Your task to perform on an android device: Do I have any events this weekend? Image 0: 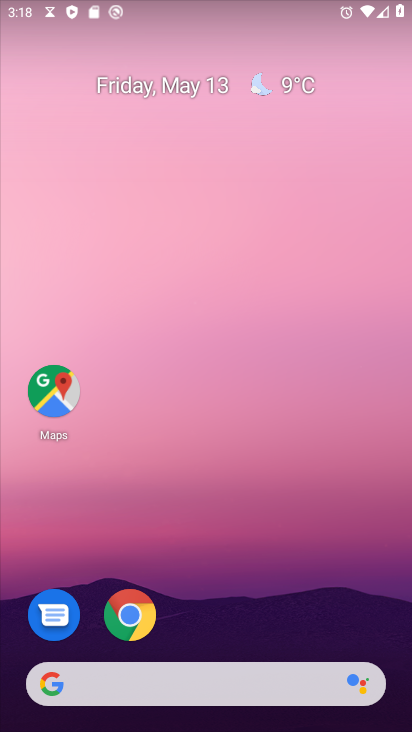
Step 0: drag from (228, 690) to (225, 82)
Your task to perform on an android device: Do I have any events this weekend? Image 1: 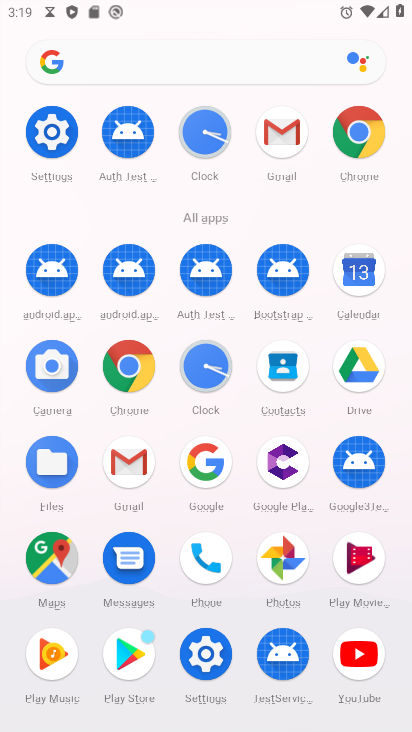
Step 1: click (364, 273)
Your task to perform on an android device: Do I have any events this weekend? Image 2: 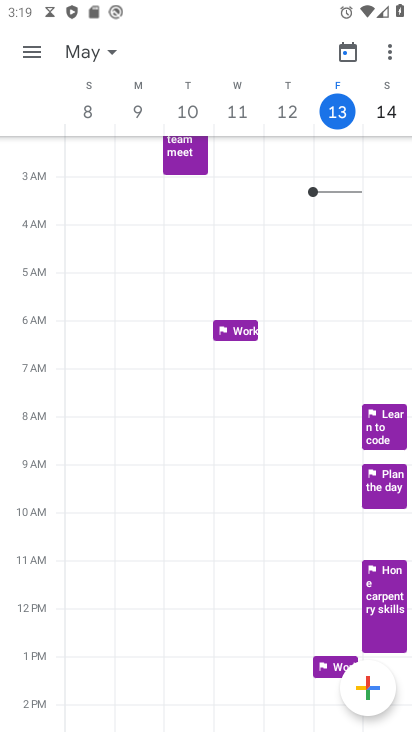
Step 2: task complete